Your task to perform on an android device: toggle sleep mode Image 0: 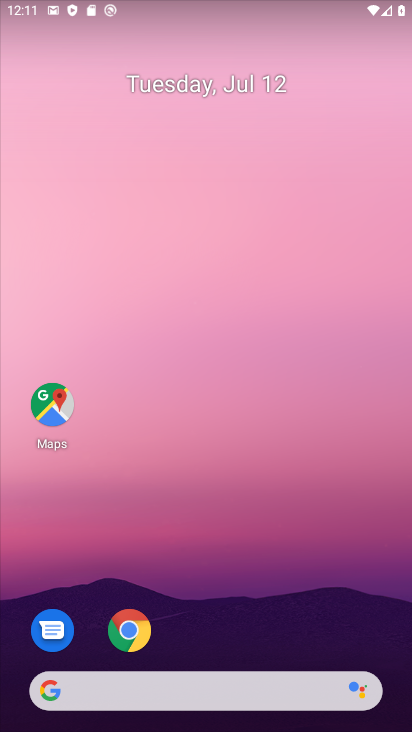
Step 0: drag from (268, 692) to (252, 259)
Your task to perform on an android device: toggle sleep mode Image 1: 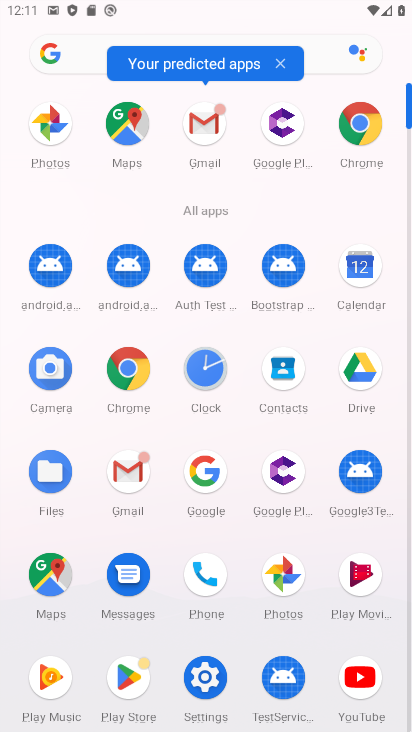
Step 1: click (193, 673)
Your task to perform on an android device: toggle sleep mode Image 2: 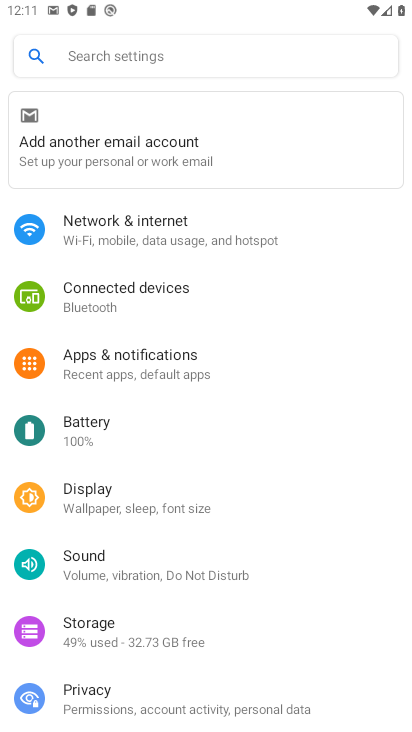
Step 2: click (100, 63)
Your task to perform on an android device: toggle sleep mode Image 3: 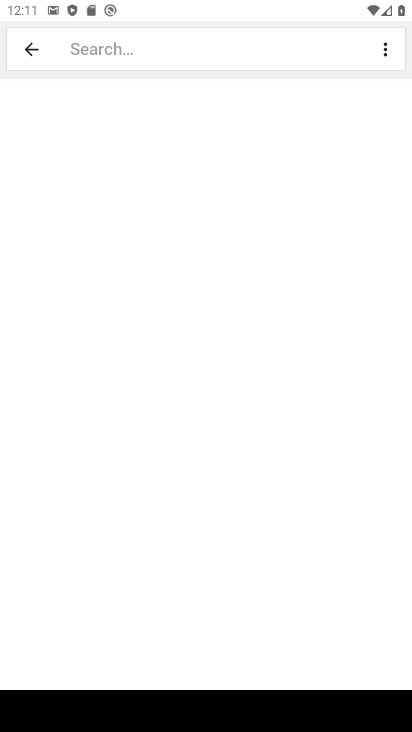
Step 3: drag from (371, 703) to (356, 582)
Your task to perform on an android device: toggle sleep mode Image 4: 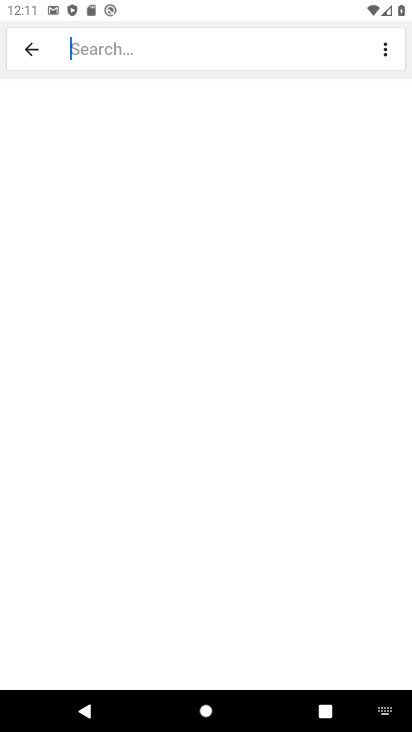
Step 4: click (384, 711)
Your task to perform on an android device: toggle sleep mode Image 5: 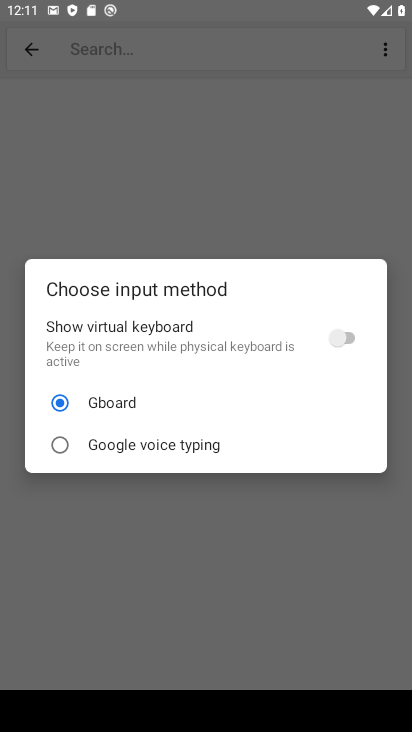
Step 5: click (354, 343)
Your task to perform on an android device: toggle sleep mode Image 6: 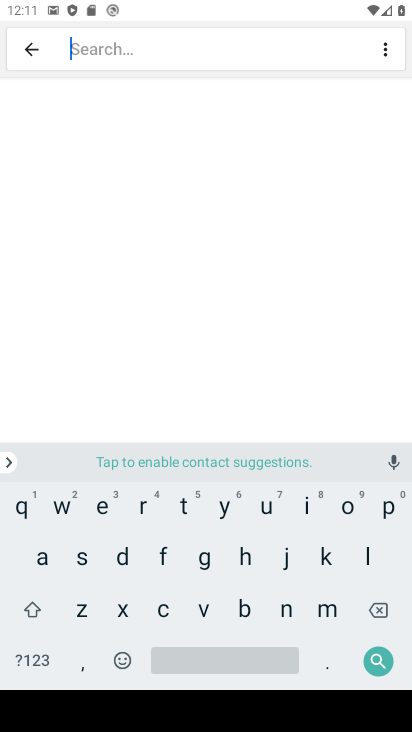
Step 6: click (83, 550)
Your task to perform on an android device: toggle sleep mode Image 7: 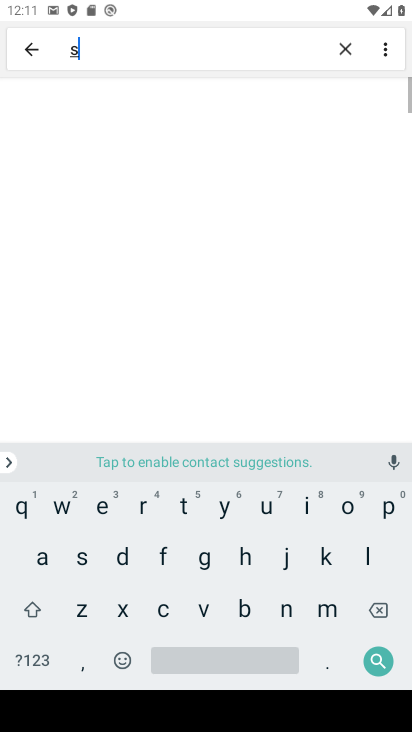
Step 7: click (368, 560)
Your task to perform on an android device: toggle sleep mode Image 8: 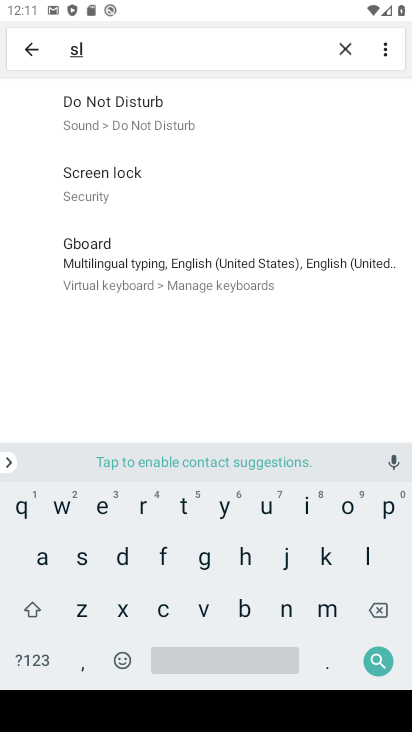
Step 8: click (101, 506)
Your task to perform on an android device: toggle sleep mode Image 9: 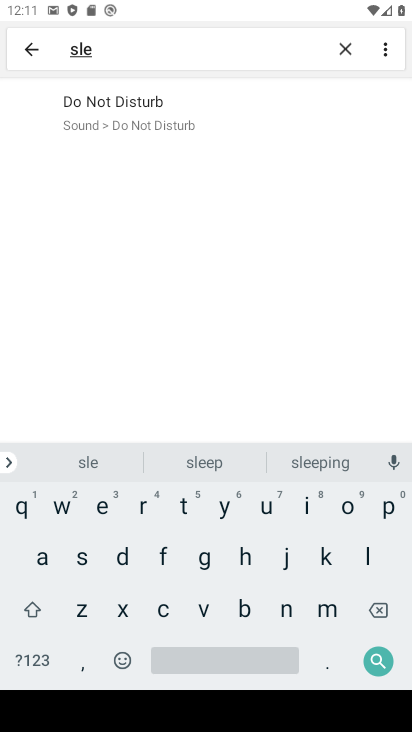
Step 9: click (164, 124)
Your task to perform on an android device: toggle sleep mode Image 10: 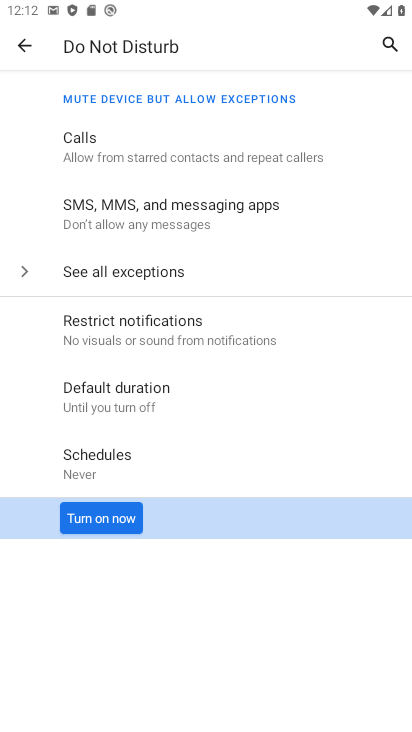
Step 10: click (129, 517)
Your task to perform on an android device: toggle sleep mode Image 11: 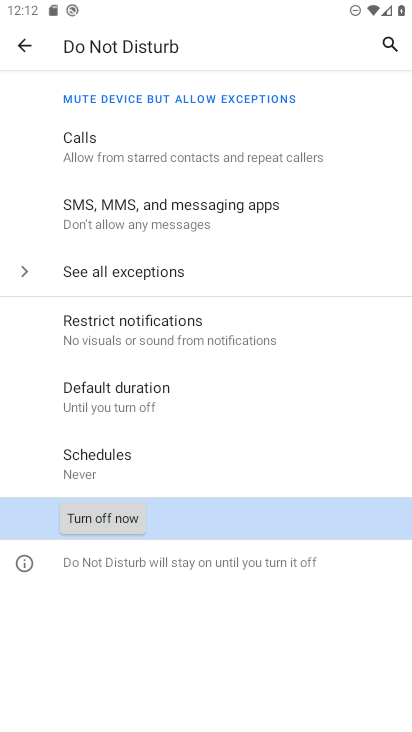
Step 11: click (129, 517)
Your task to perform on an android device: toggle sleep mode Image 12: 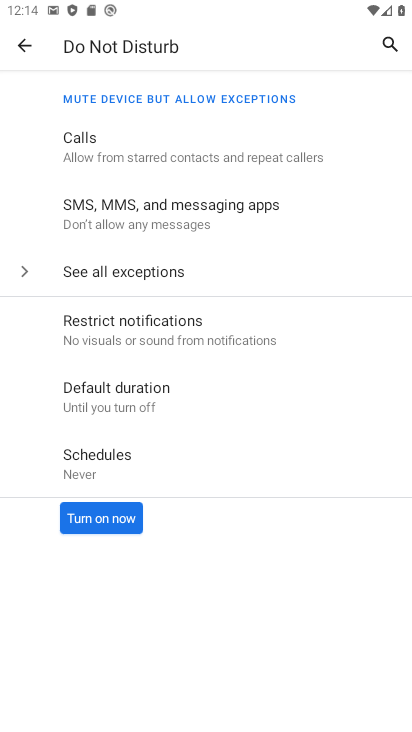
Step 12: task complete